Your task to perform on an android device: change timer sound Image 0: 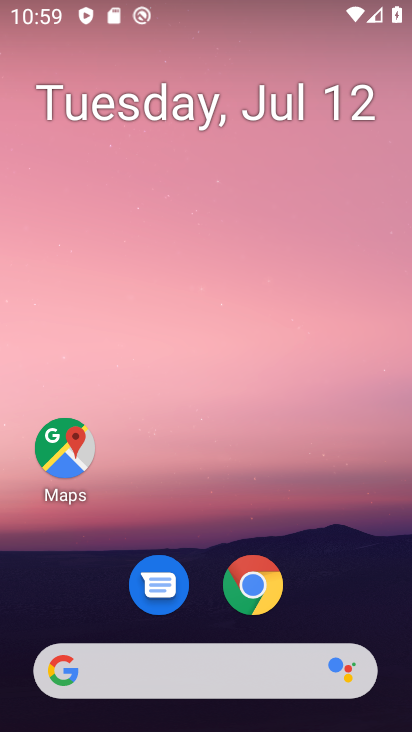
Step 0: drag from (323, 579) to (325, 147)
Your task to perform on an android device: change timer sound Image 1: 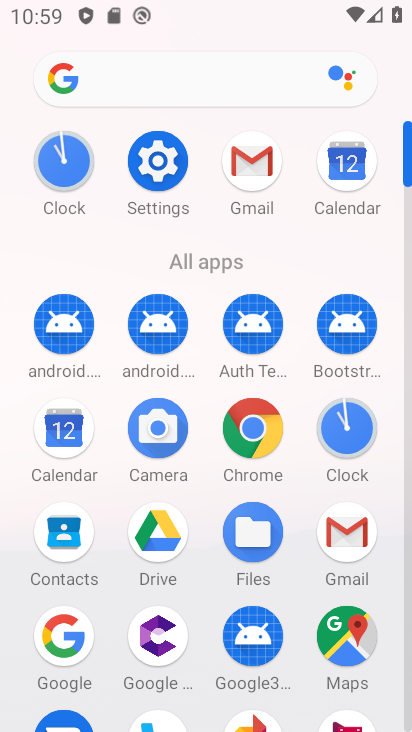
Step 1: click (76, 167)
Your task to perform on an android device: change timer sound Image 2: 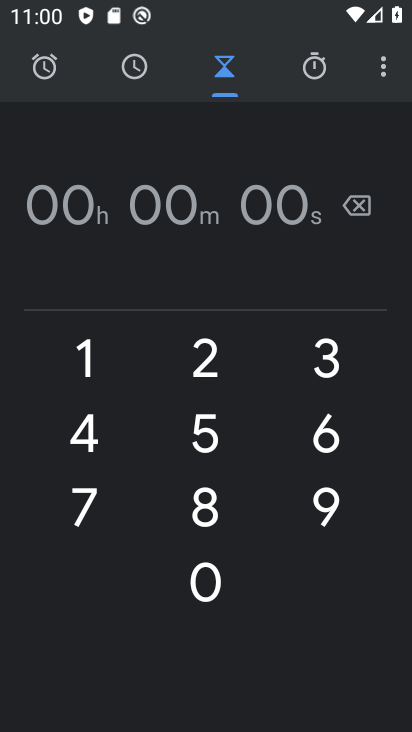
Step 2: click (384, 69)
Your task to perform on an android device: change timer sound Image 3: 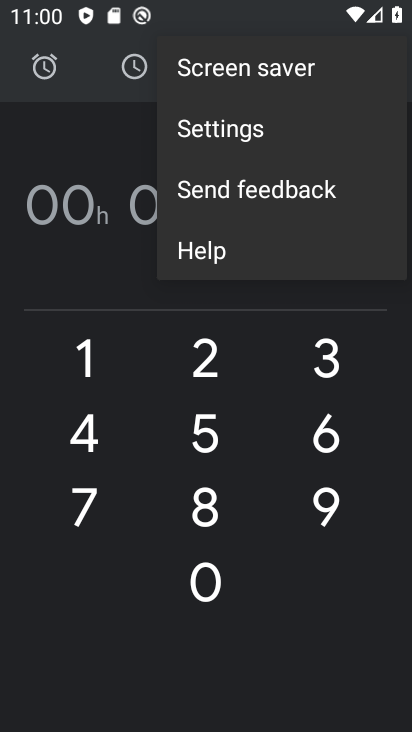
Step 3: click (267, 132)
Your task to perform on an android device: change timer sound Image 4: 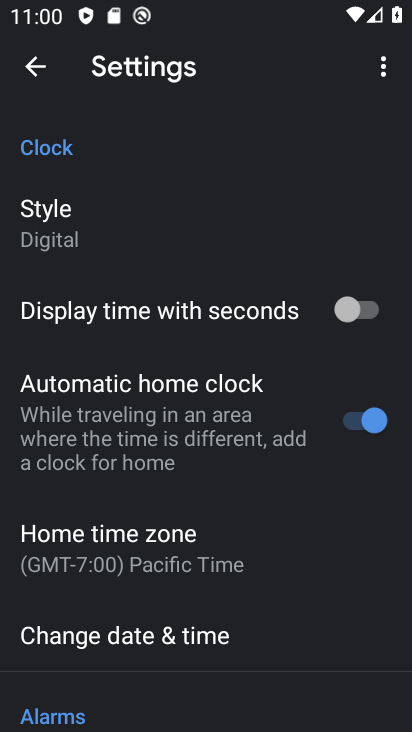
Step 4: drag from (174, 494) to (210, 146)
Your task to perform on an android device: change timer sound Image 5: 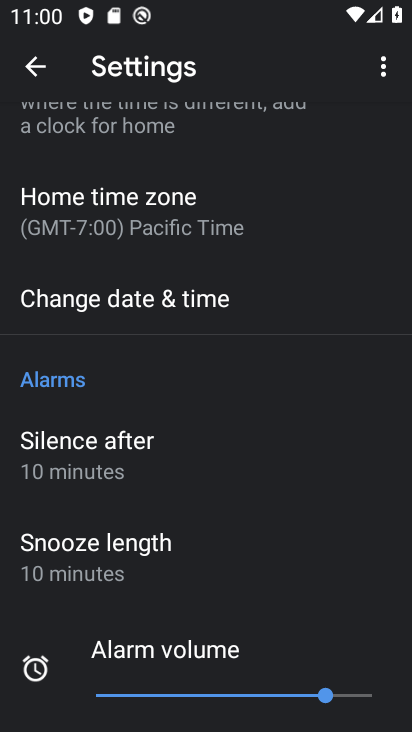
Step 5: drag from (198, 514) to (231, 158)
Your task to perform on an android device: change timer sound Image 6: 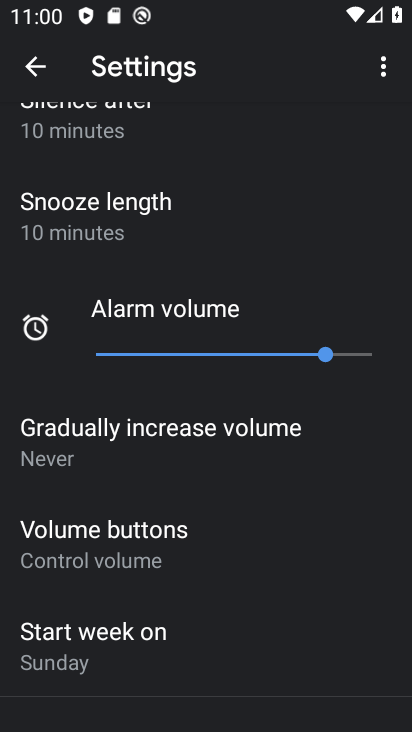
Step 6: drag from (222, 565) to (214, 223)
Your task to perform on an android device: change timer sound Image 7: 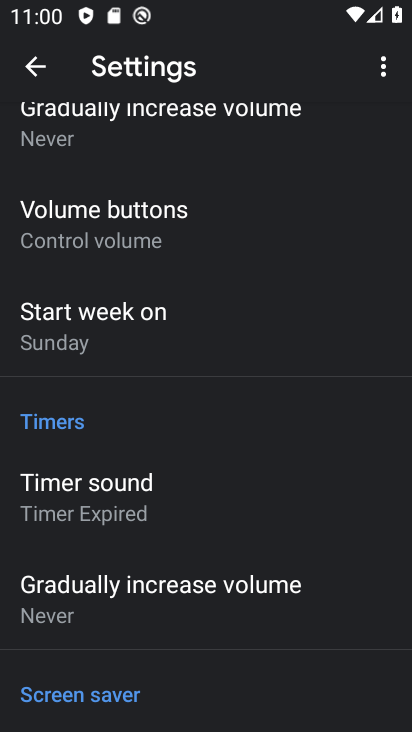
Step 7: click (114, 490)
Your task to perform on an android device: change timer sound Image 8: 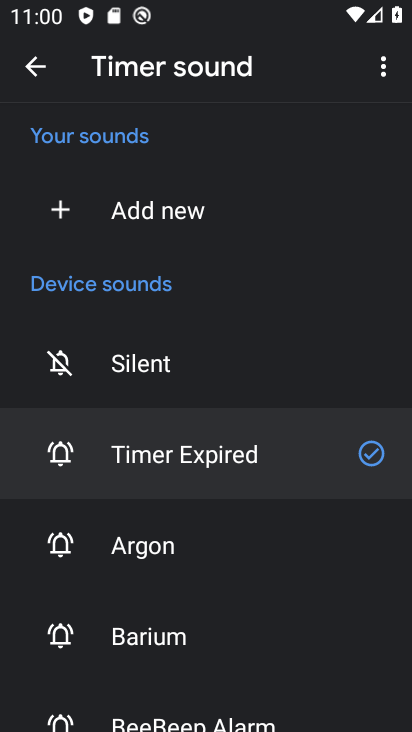
Step 8: click (124, 554)
Your task to perform on an android device: change timer sound Image 9: 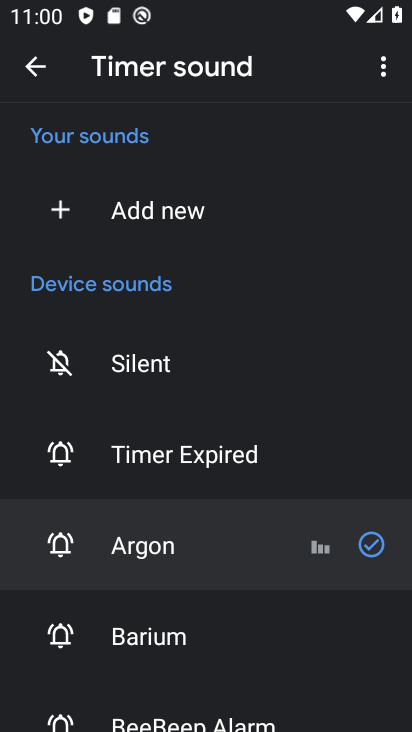
Step 9: task complete